Your task to perform on an android device: check storage Image 0: 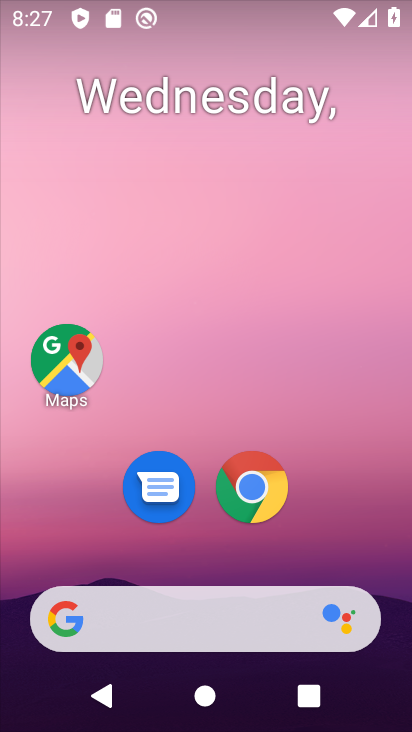
Step 0: drag from (87, 568) to (254, 43)
Your task to perform on an android device: check storage Image 1: 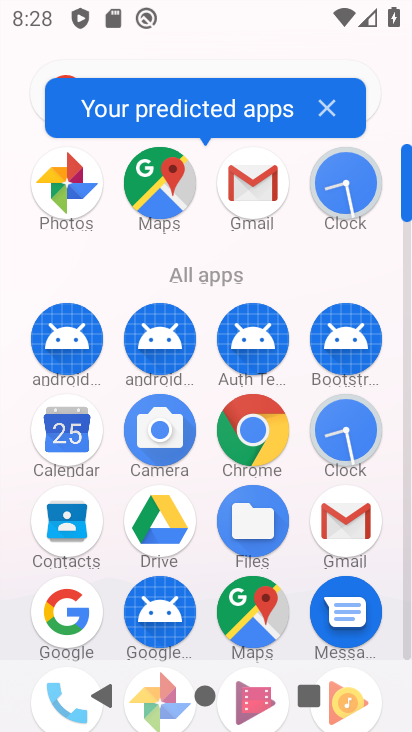
Step 1: drag from (129, 666) to (240, 361)
Your task to perform on an android device: check storage Image 2: 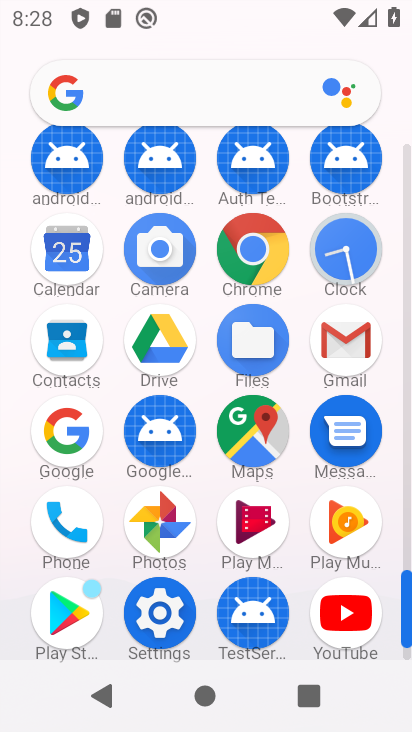
Step 2: click (176, 618)
Your task to perform on an android device: check storage Image 3: 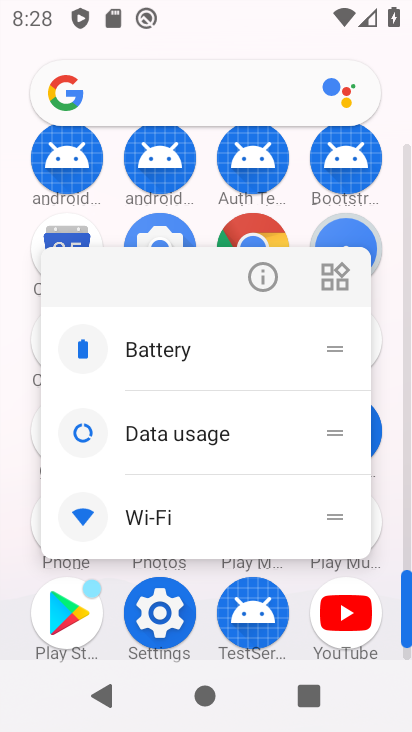
Step 3: click (159, 617)
Your task to perform on an android device: check storage Image 4: 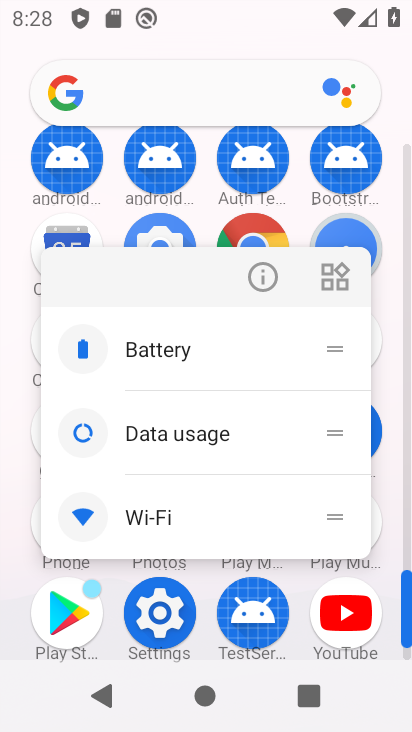
Step 4: click (154, 617)
Your task to perform on an android device: check storage Image 5: 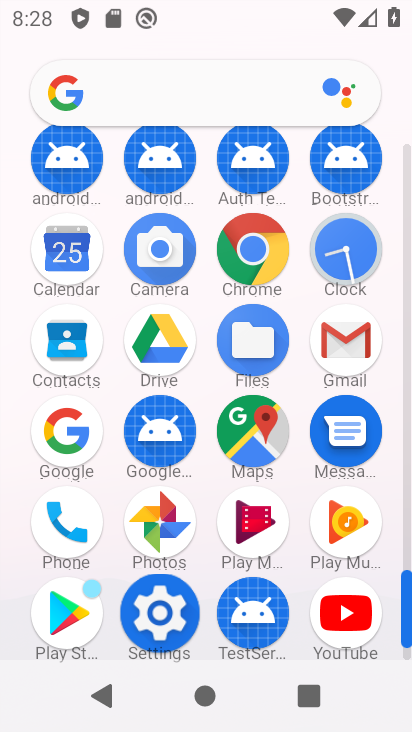
Step 5: click (154, 617)
Your task to perform on an android device: check storage Image 6: 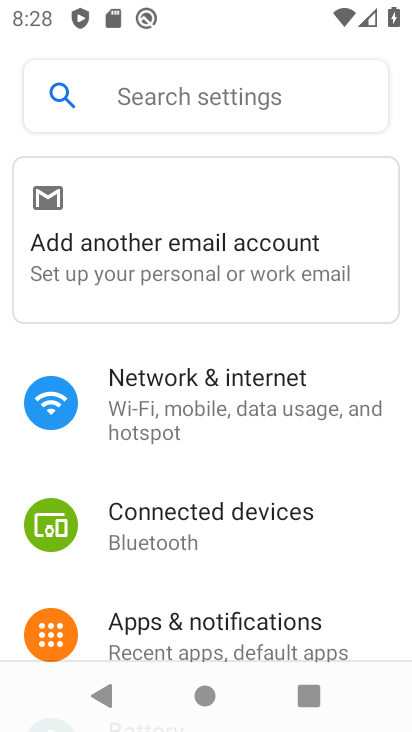
Step 6: drag from (222, 595) to (350, 200)
Your task to perform on an android device: check storage Image 7: 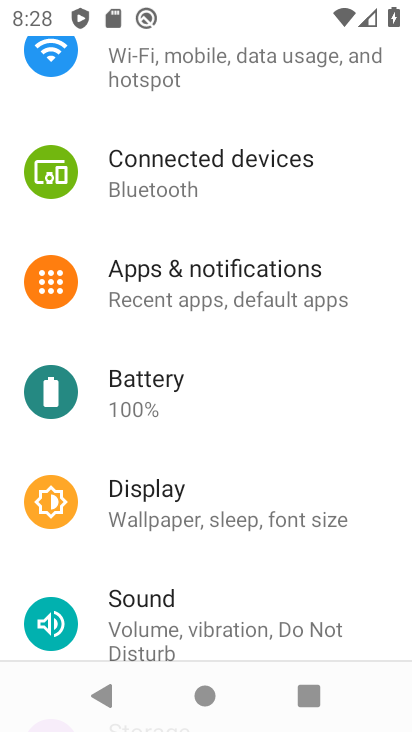
Step 7: drag from (181, 611) to (269, 196)
Your task to perform on an android device: check storage Image 8: 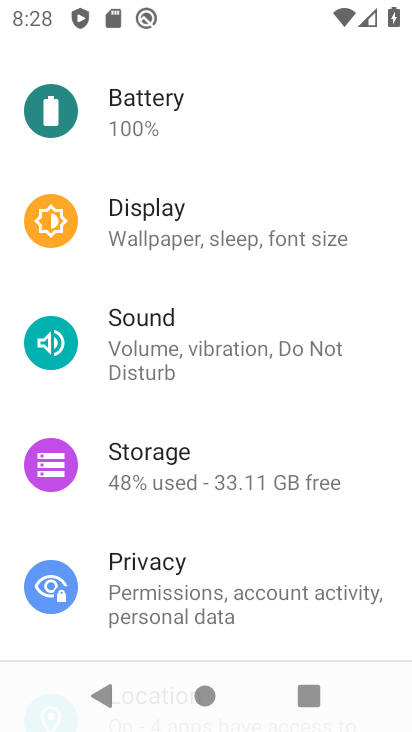
Step 8: click (120, 456)
Your task to perform on an android device: check storage Image 9: 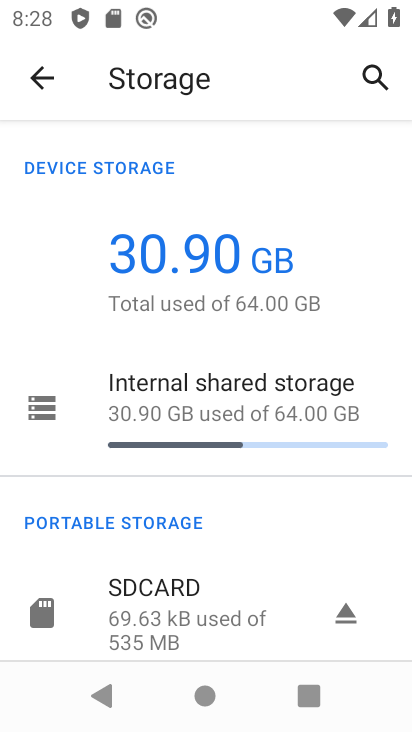
Step 9: click (51, 433)
Your task to perform on an android device: check storage Image 10: 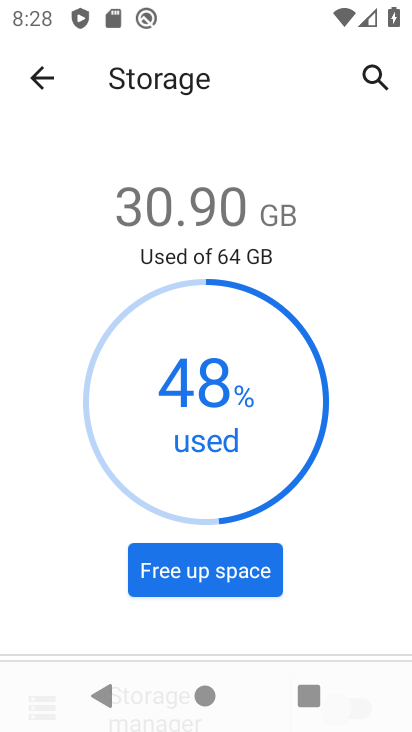
Step 10: task complete